Your task to perform on an android device: open a bookmark in the chrome app Image 0: 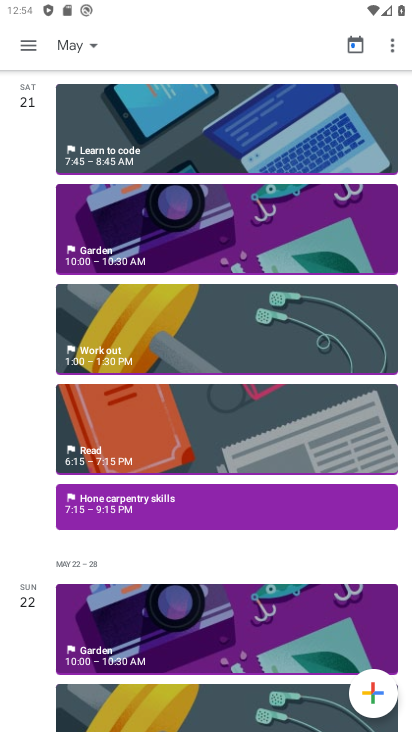
Step 0: drag from (228, 584) to (232, 429)
Your task to perform on an android device: open a bookmark in the chrome app Image 1: 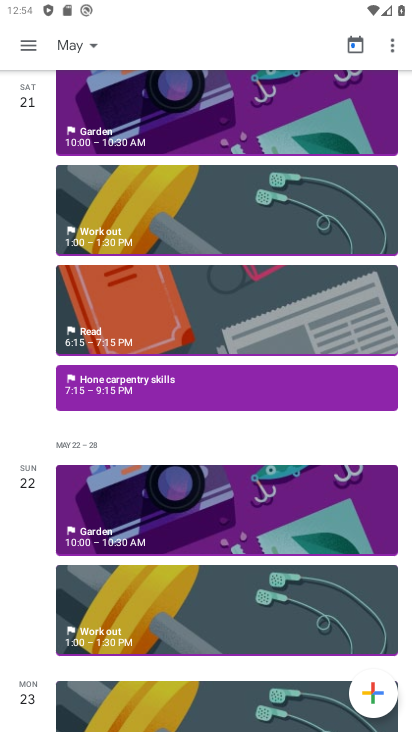
Step 1: drag from (231, 393) to (227, 348)
Your task to perform on an android device: open a bookmark in the chrome app Image 2: 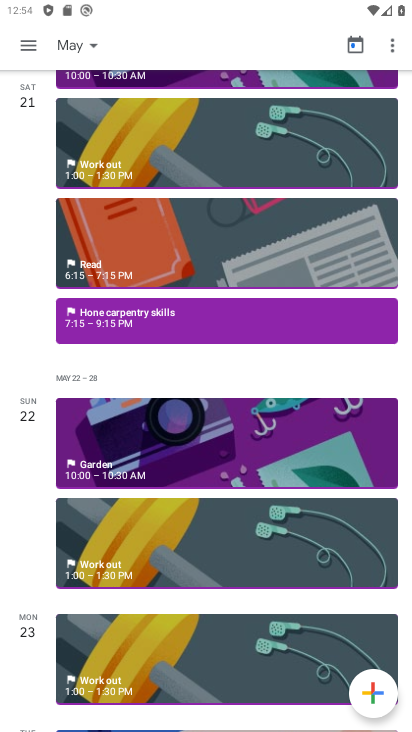
Step 2: press home button
Your task to perform on an android device: open a bookmark in the chrome app Image 3: 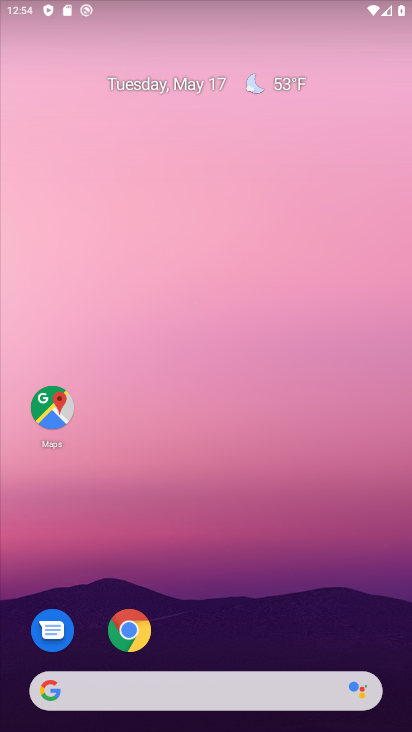
Step 3: drag from (234, 703) to (222, 313)
Your task to perform on an android device: open a bookmark in the chrome app Image 4: 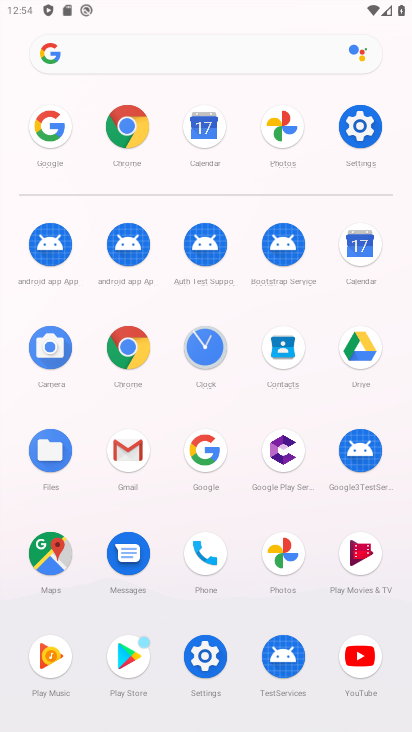
Step 4: click (128, 147)
Your task to perform on an android device: open a bookmark in the chrome app Image 5: 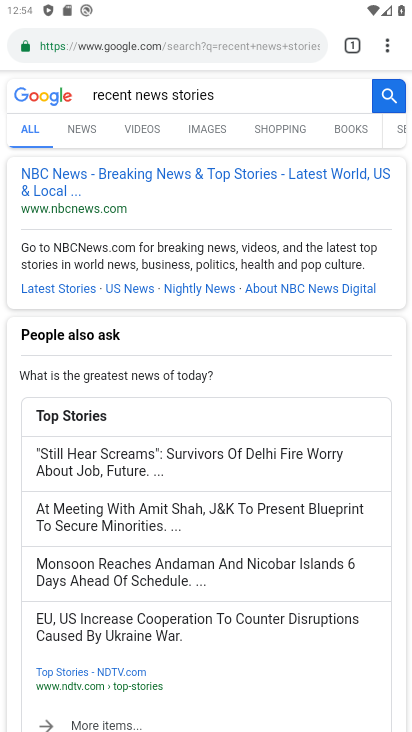
Step 5: click (387, 48)
Your task to perform on an android device: open a bookmark in the chrome app Image 6: 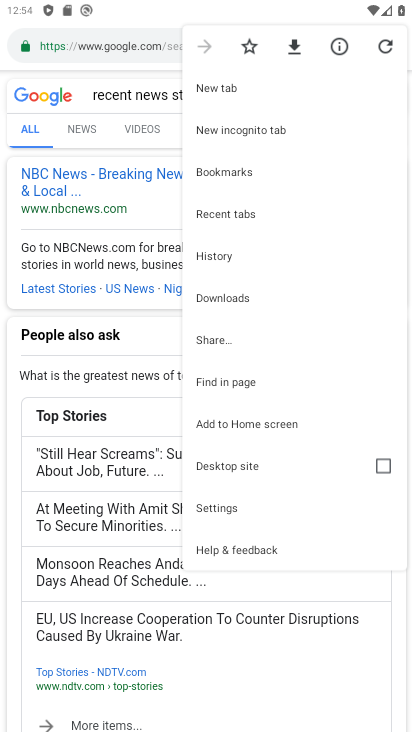
Step 6: click (248, 175)
Your task to perform on an android device: open a bookmark in the chrome app Image 7: 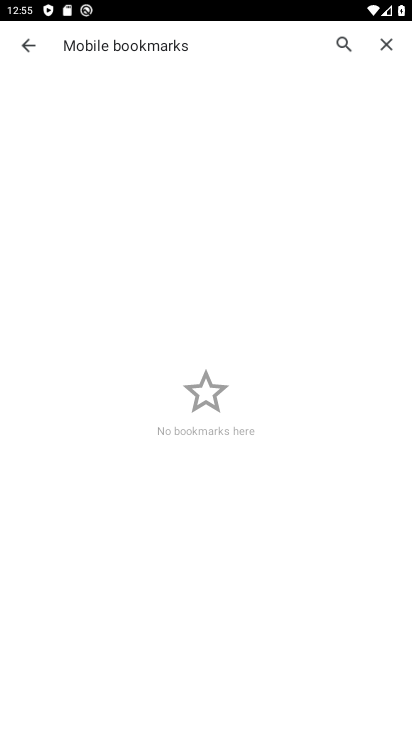
Step 7: task complete